Your task to perform on an android device: What's the weather? Image 0: 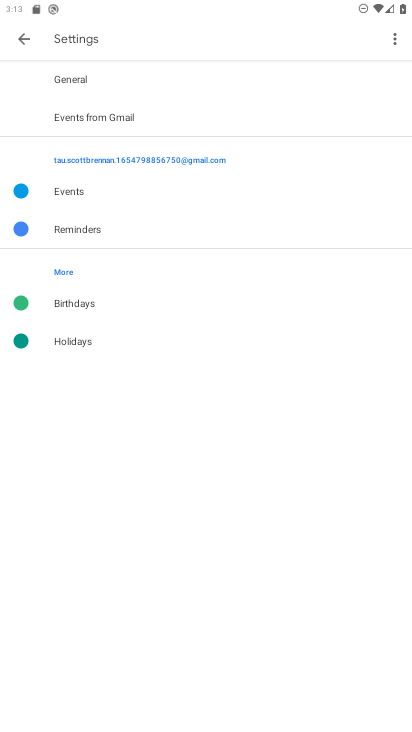
Step 0: press home button
Your task to perform on an android device: What's the weather? Image 1: 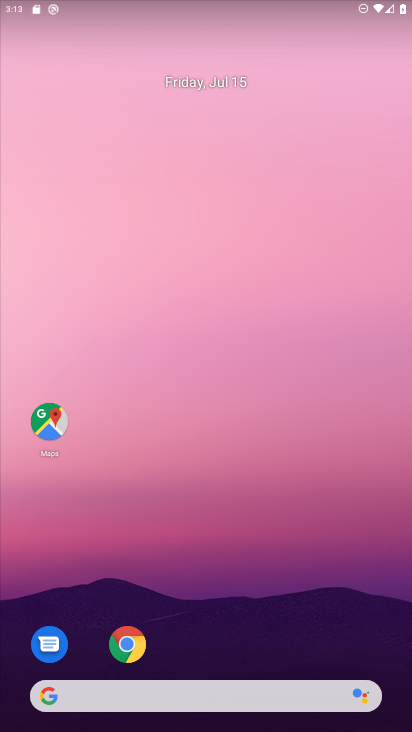
Step 1: click (204, 695)
Your task to perform on an android device: What's the weather? Image 2: 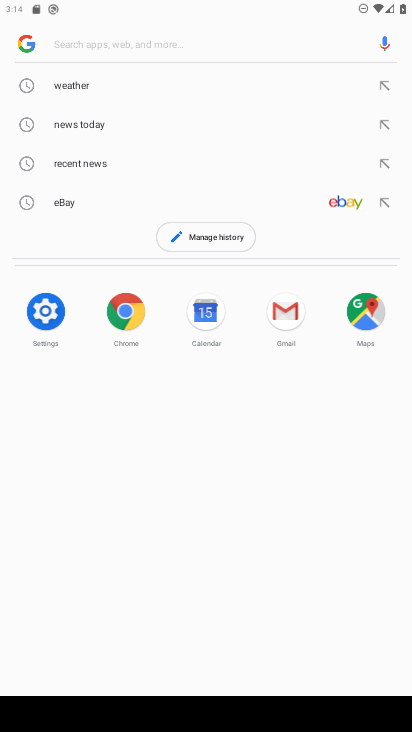
Step 2: click (75, 77)
Your task to perform on an android device: What's the weather? Image 3: 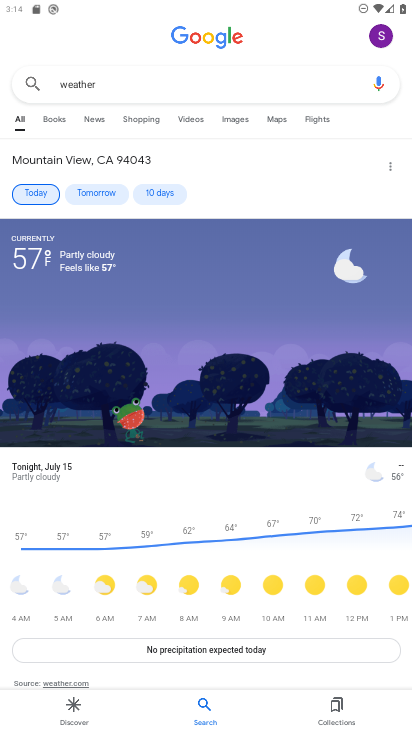
Step 3: task complete